Your task to perform on an android device: open app "LinkedIn" Image 0: 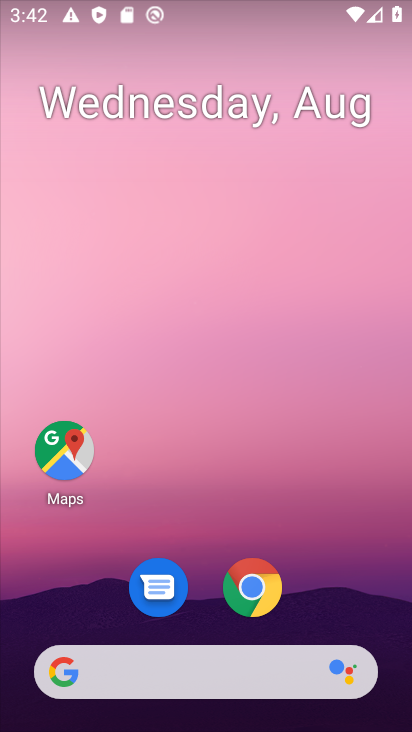
Step 0: drag from (209, 621) to (278, 0)
Your task to perform on an android device: open app "LinkedIn" Image 1: 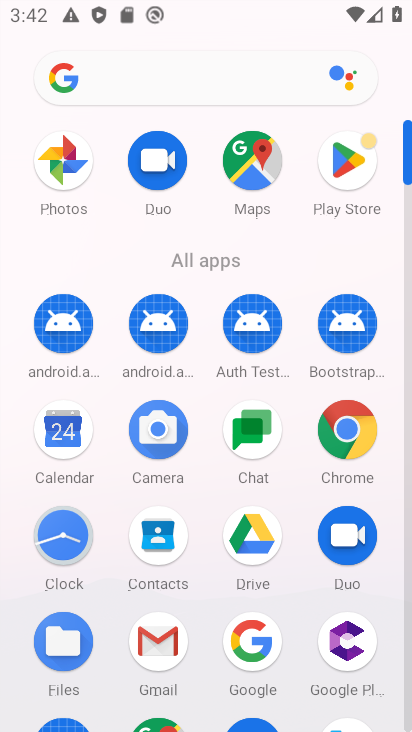
Step 1: click (350, 152)
Your task to perform on an android device: open app "LinkedIn" Image 2: 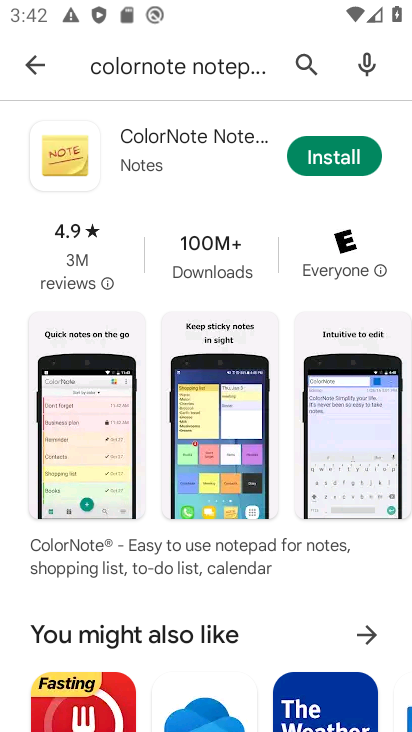
Step 2: click (298, 56)
Your task to perform on an android device: open app "LinkedIn" Image 3: 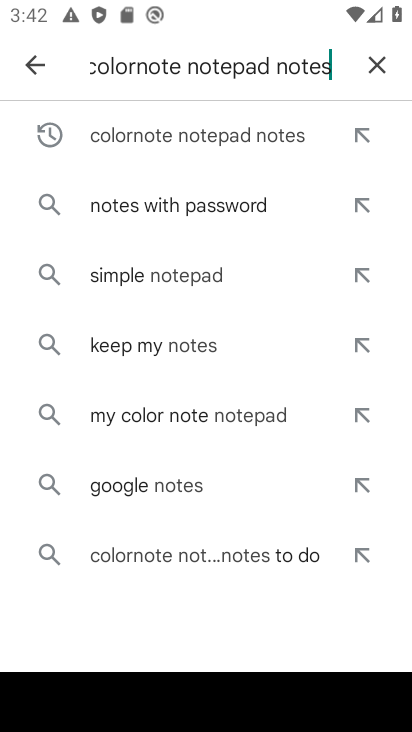
Step 3: click (374, 67)
Your task to perform on an android device: open app "LinkedIn" Image 4: 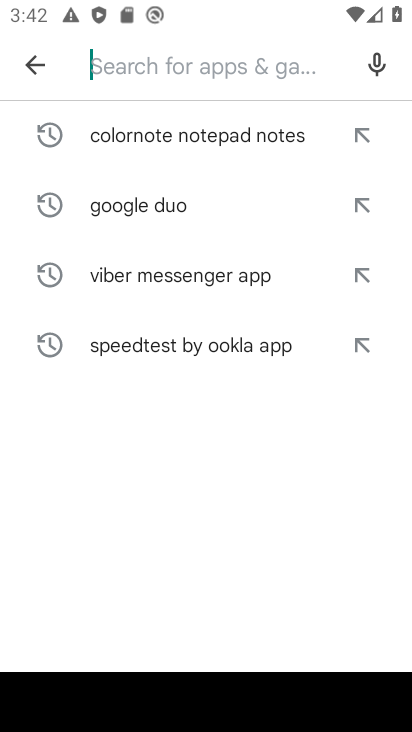
Step 4: type "LinkedIn"
Your task to perform on an android device: open app "LinkedIn" Image 5: 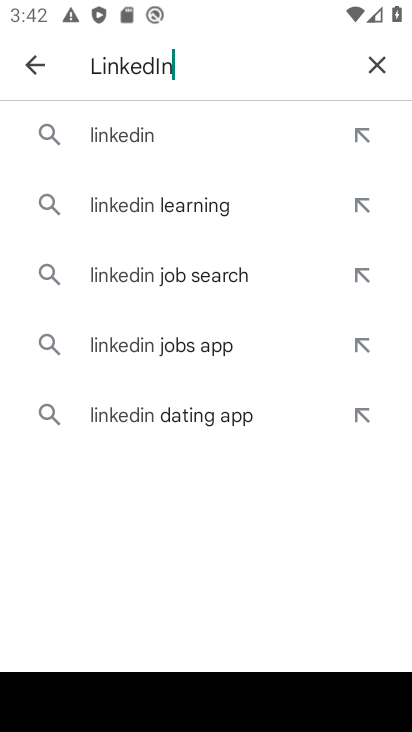
Step 5: click (131, 139)
Your task to perform on an android device: open app "LinkedIn" Image 6: 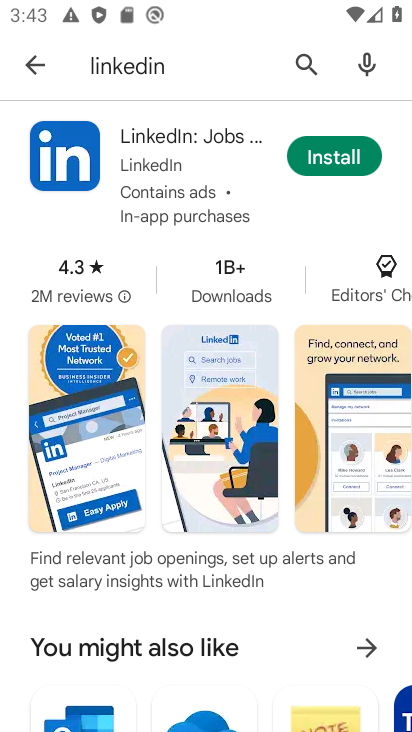
Step 6: task complete